Your task to perform on an android device: turn off improve location accuracy Image 0: 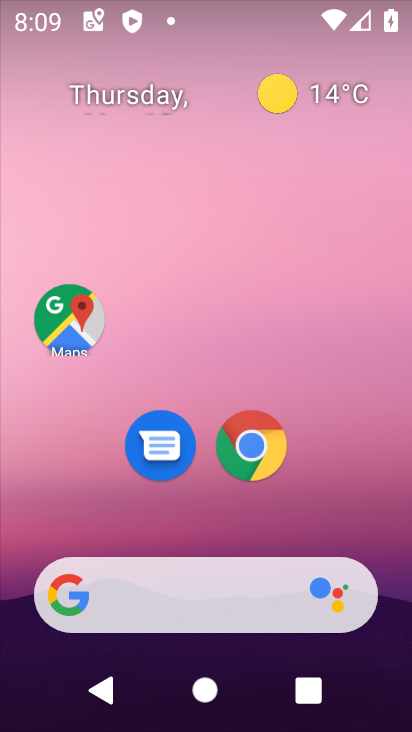
Step 0: drag from (229, 724) to (224, 125)
Your task to perform on an android device: turn off improve location accuracy Image 1: 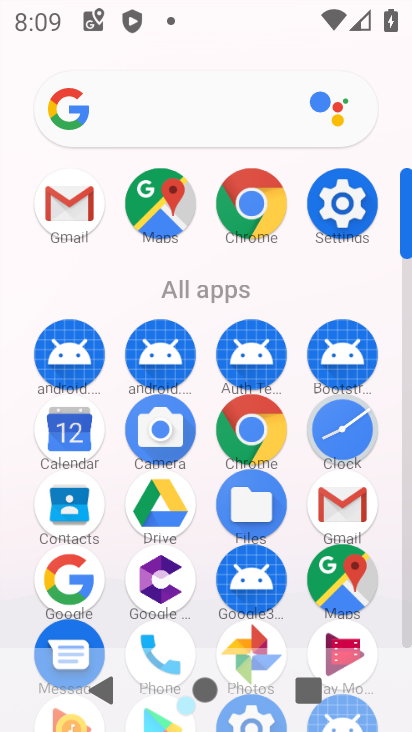
Step 1: click (343, 204)
Your task to perform on an android device: turn off improve location accuracy Image 2: 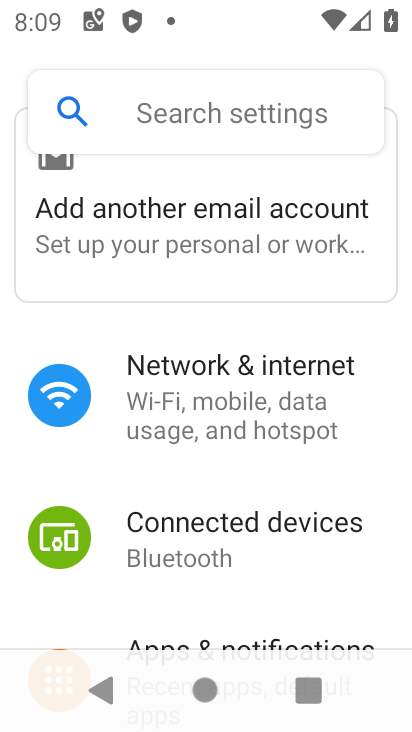
Step 2: drag from (257, 616) to (262, 239)
Your task to perform on an android device: turn off improve location accuracy Image 3: 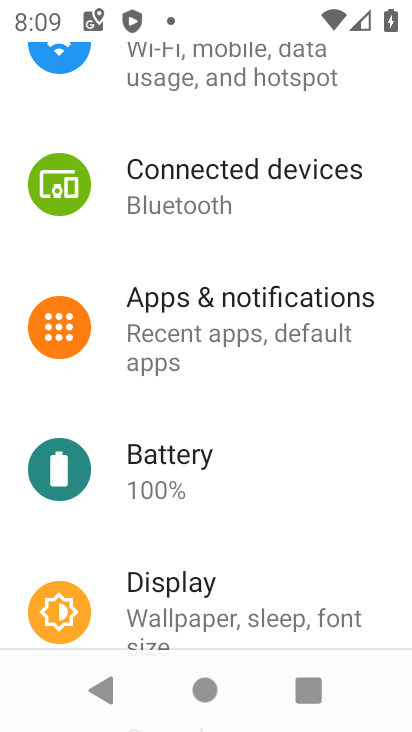
Step 3: drag from (232, 599) to (252, 276)
Your task to perform on an android device: turn off improve location accuracy Image 4: 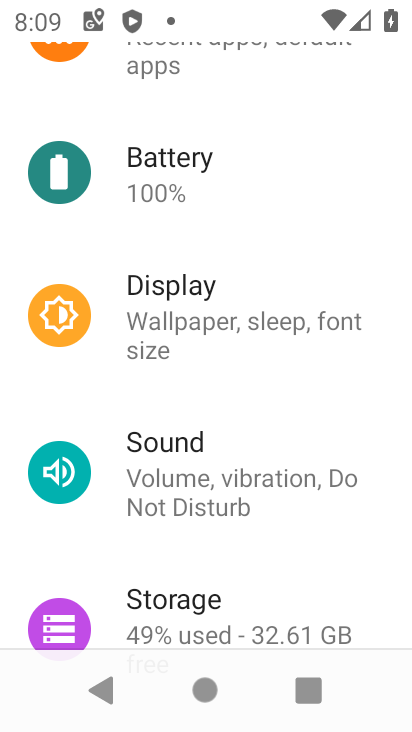
Step 4: drag from (189, 565) to (197, 222)
Your task to perform on an android device: turn off improve location accuracy Image 5: 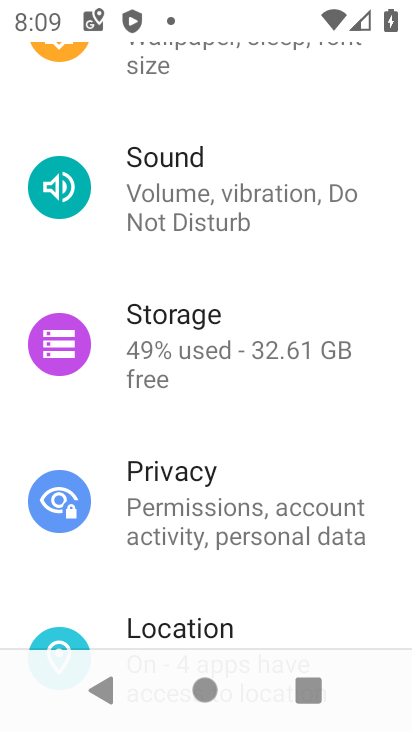
Step 5: click (170, 619)
Your task to perform on an android device: turn off improve location accuracy Image 6: 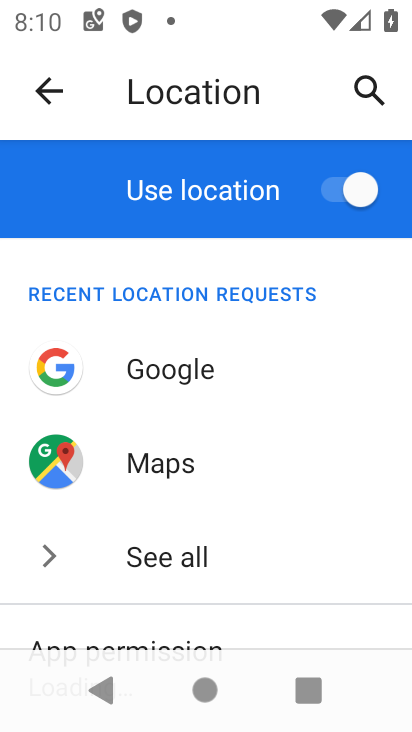
Step 6: drag from (169, 623) to (182, 279)
Your task to perform on an android device: turn off improve location accuracy Image 7: 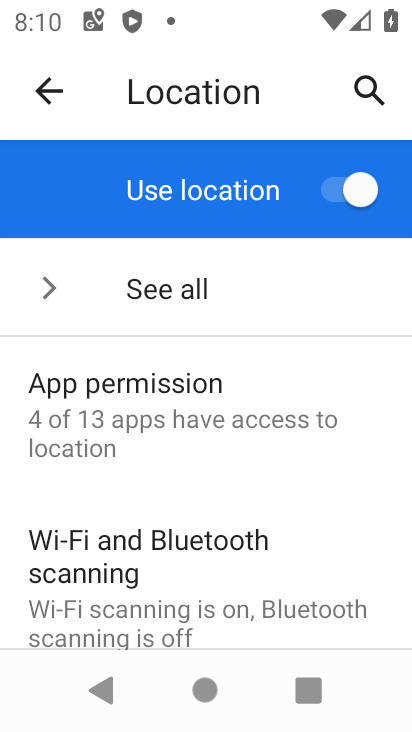
Step 7: drag from (196, 592) to (208, 278)
Your task to perform on an android device: turn off improve location accuracy Image 8: 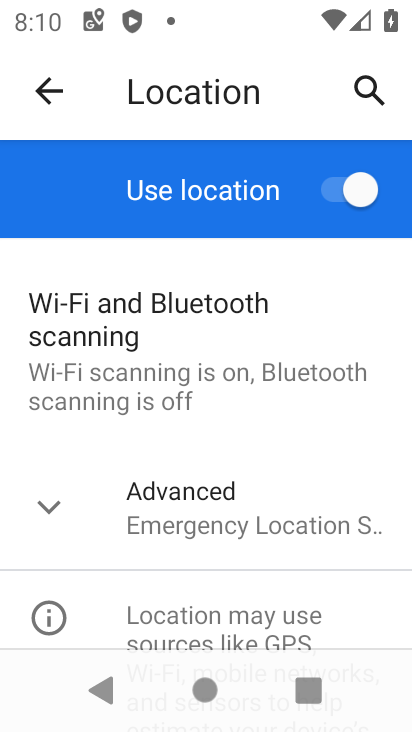
Step 8: click (189, 501)
Your task to perform on an android device: turn off improve location accuracy Image 9: 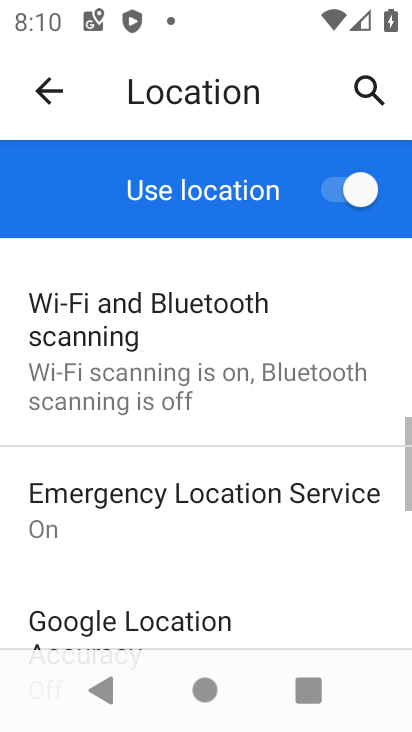
Step 9: drag from (248, 610) to (262, 383)
Your task to perform on an android device: turn off improve location accuracy Image 10: 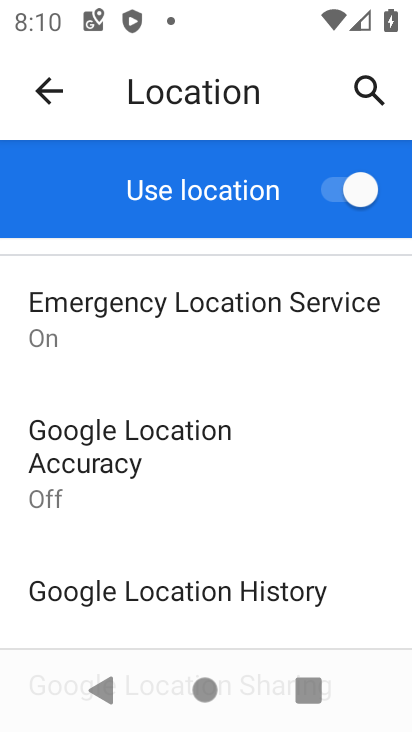
Step 10: click (113, 439)
Your task to perform on an android device: turn off improve location accuracy Image 11: 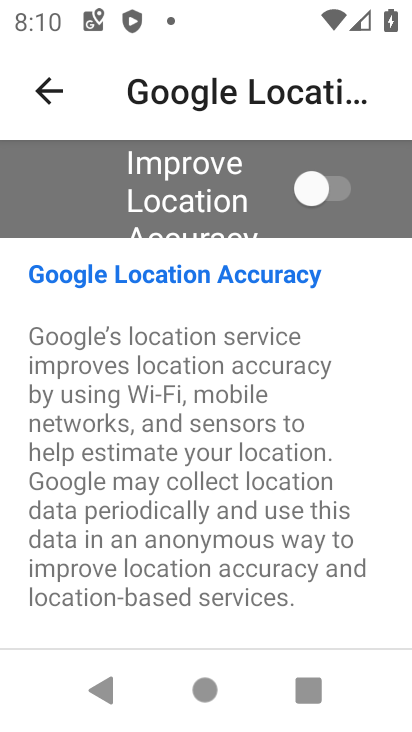
Step 11: task complete